Your task to perform on an android device: Add macbook pro 15 inch to the cart on newegg, then select checkout. Image 0: 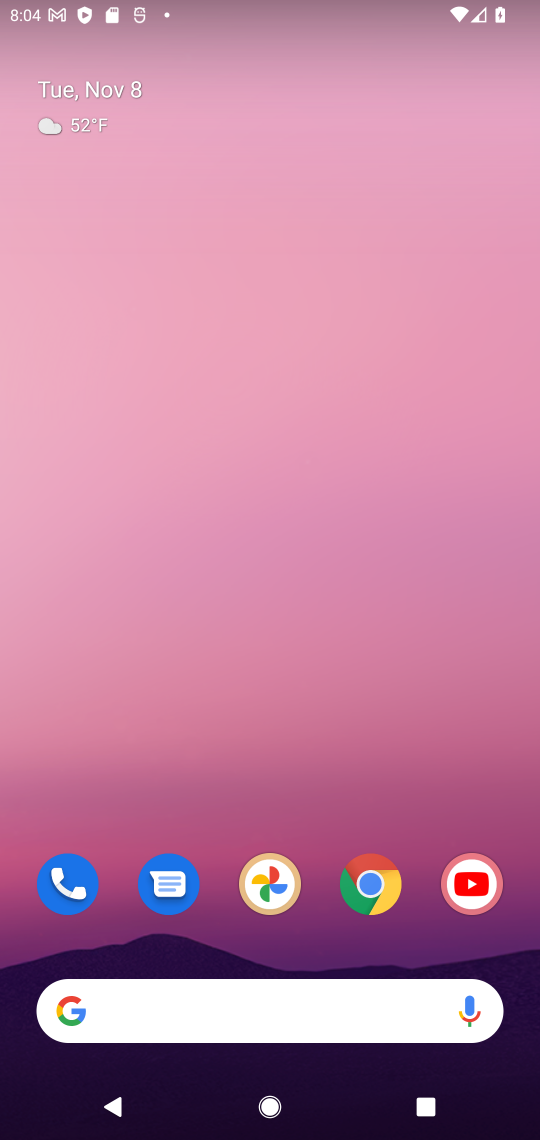
Step 0: drag from (296, 955) to (299, 278)
Your task to perform on an android device: Add macbook pro 15 inch to the cart on newegg, then select checkout. Image 1: 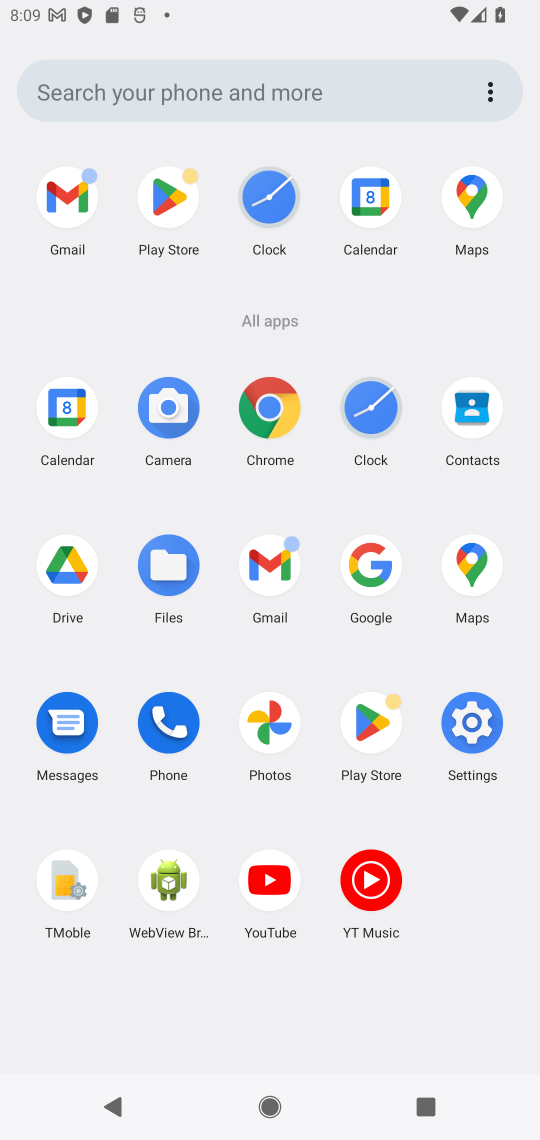
Step 1: click (370, 583)
Your task to perform on an android device: Add macbook pro 15 inch to the cart on newegg, then select checkout. Image 2: 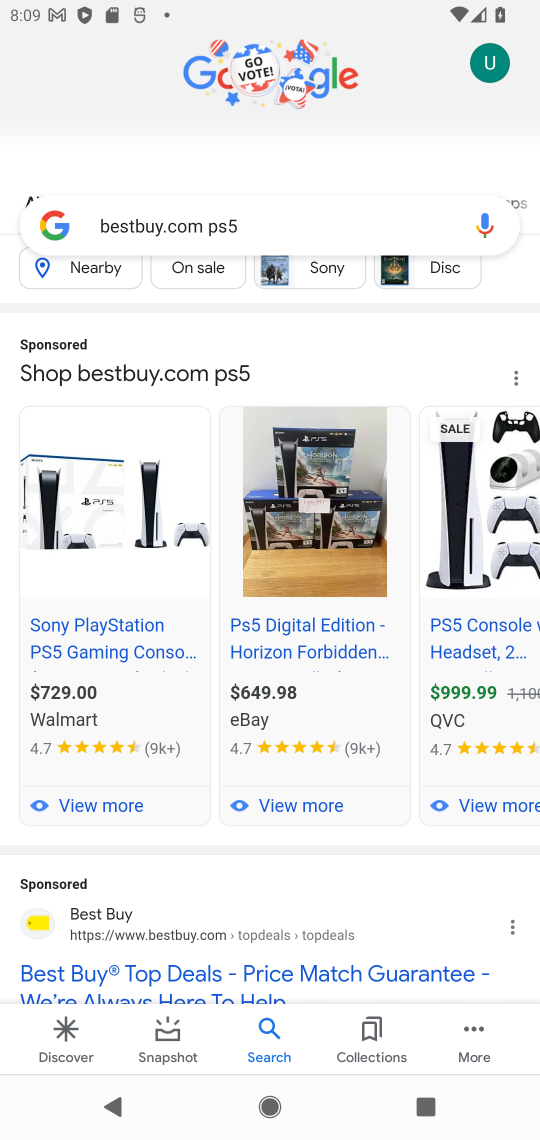
Step 2: click (301, 214)
Your task to perform on an android device: Add macbook pro 15 inch to the cart on newegg, then select checkout. Image 3: 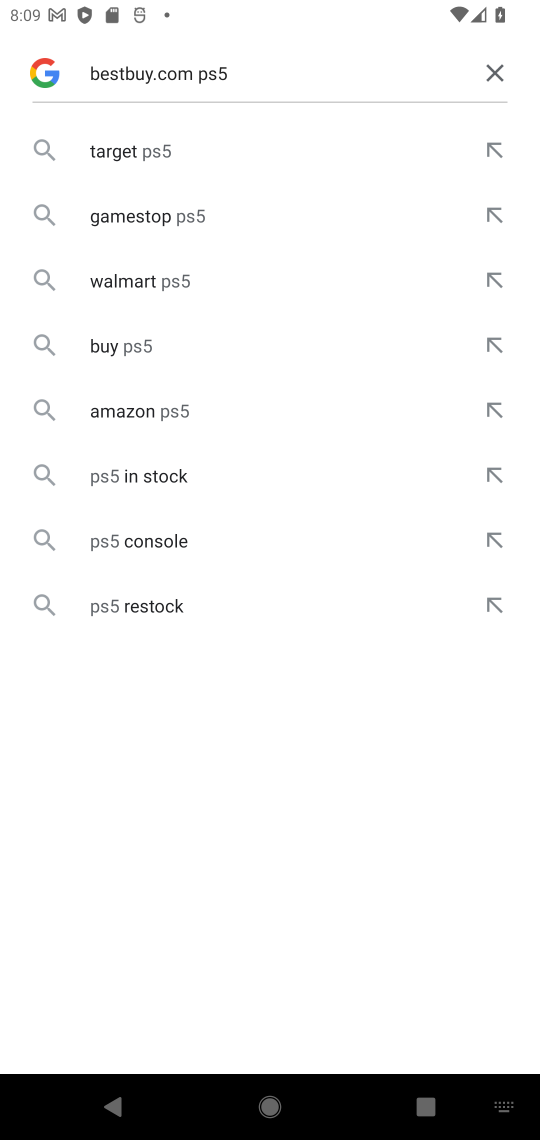
Step 3: click (495, 88)
Your task to perform on an android device: Add macbook pro 15 inch to the cart on newegg, then select checkout. Image 4: 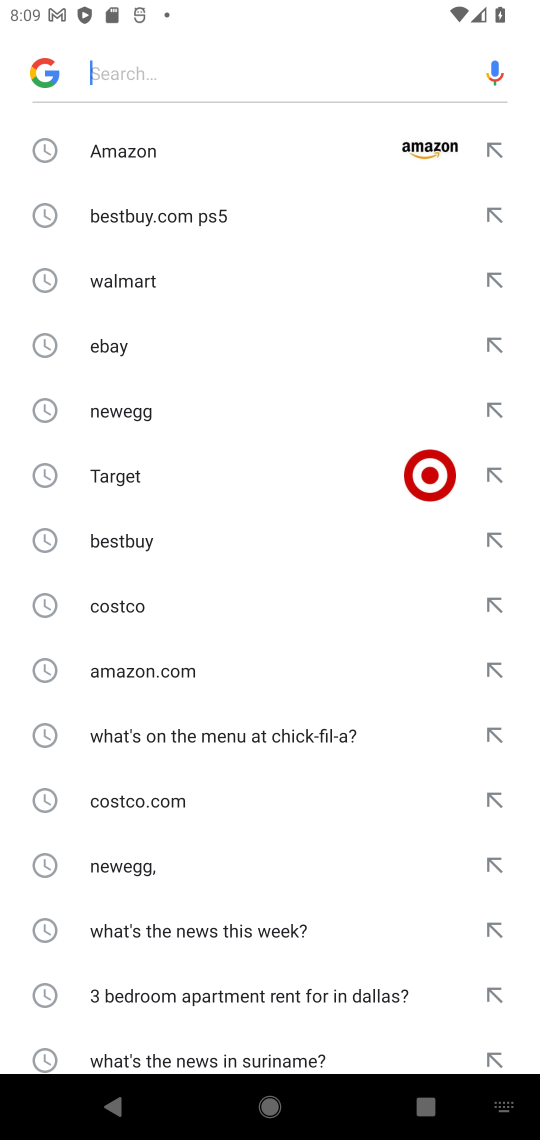
Step 4: type "newegg"
Your task to perform on an android device: Add macbook pro 15 inch to the cart on newegg, then select checkout. Image 5: 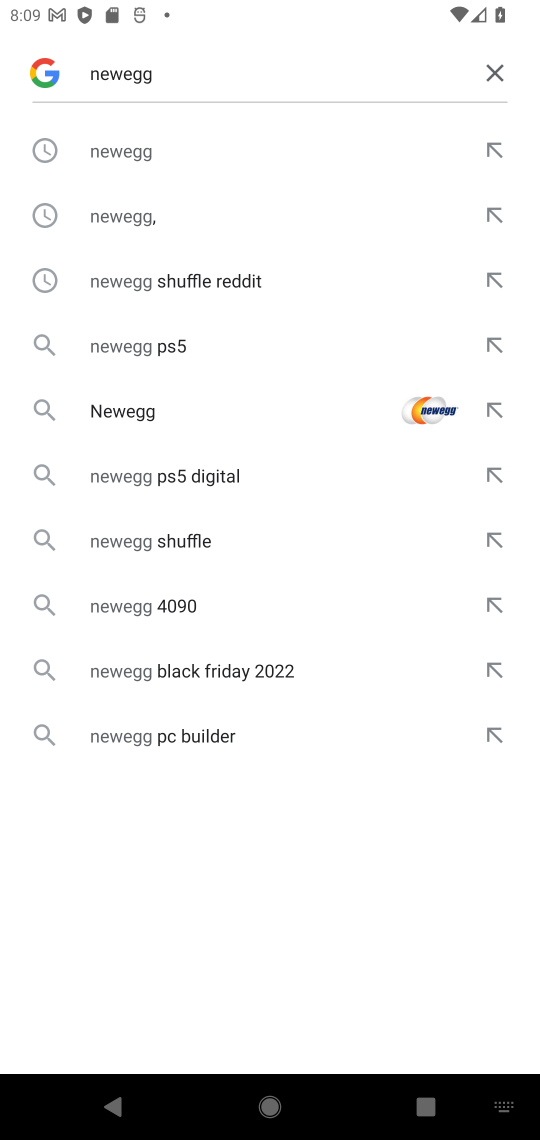
Step 5: click (212, 154)
Your task to perform on an android device: Add macbook pro 15 inch to the cart on newegg, then select checkout. Image 6: 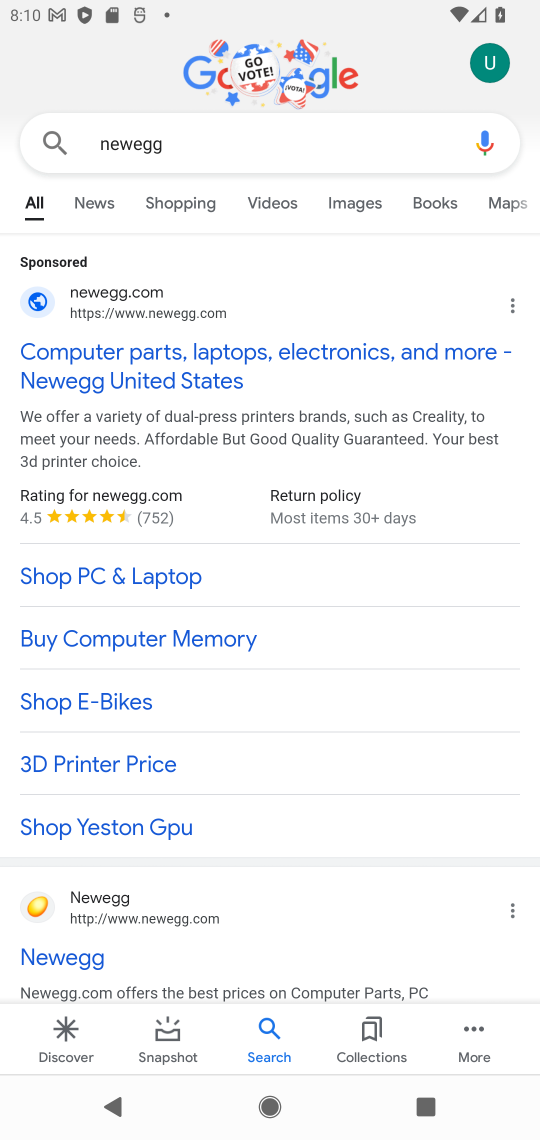
Step 6: click (152, 384)
Your task to perform on an android device: Add macbook pro 15 inch to the cart on newegg, then select checkout. Image 7: 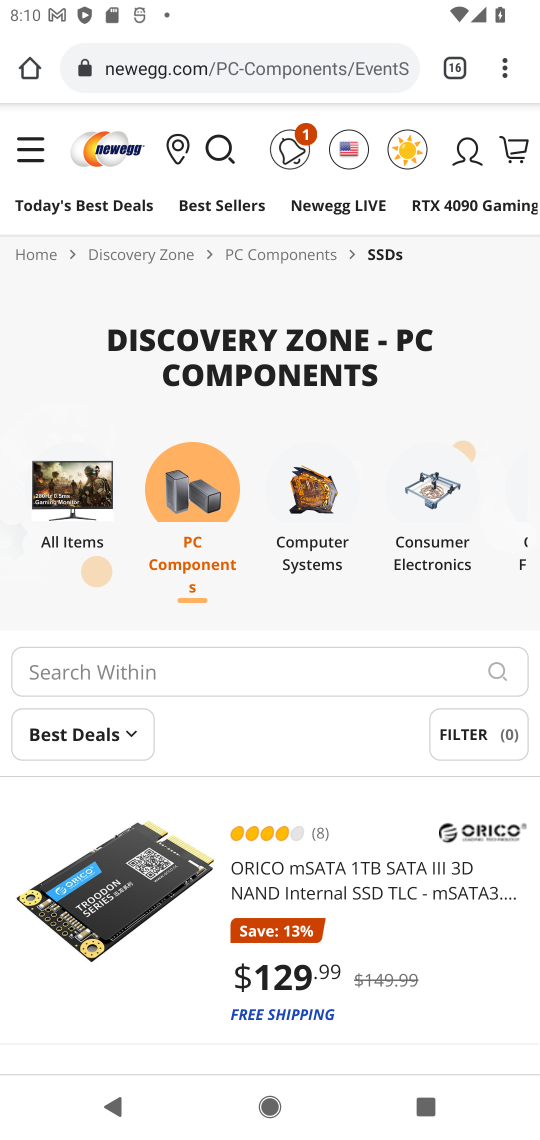
Step 7: click (226, 154)
Your task to perform on an android device: Add macbook pro 15 inch to the cart on newegg, then select checkout. Image 8: 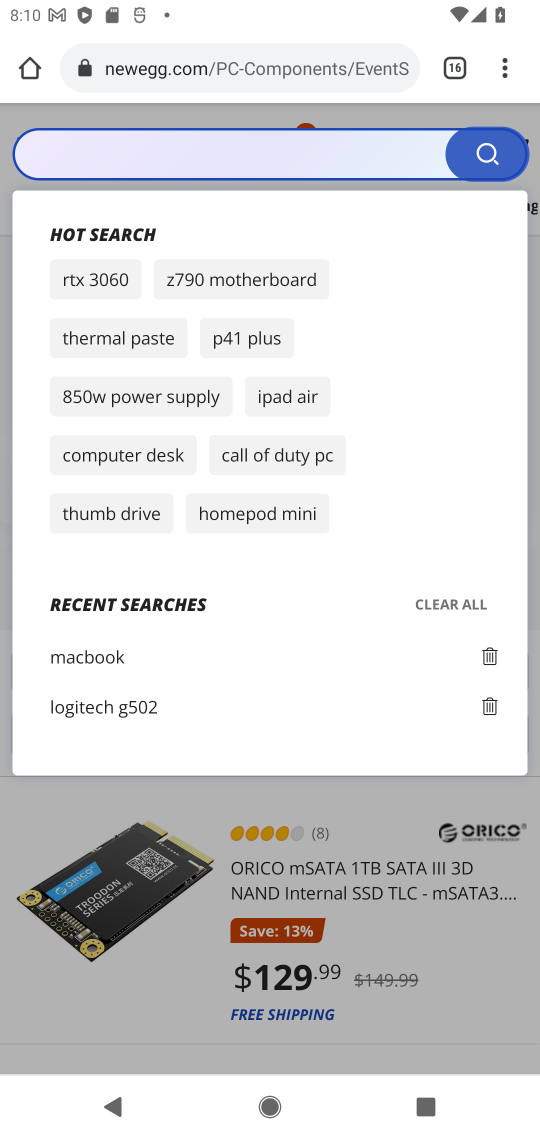
Step 8: click (122, 174)
Your task to perform on an android device: Add macbook pro 15 inch to the cart on newegg, then select checkout. Image 9: 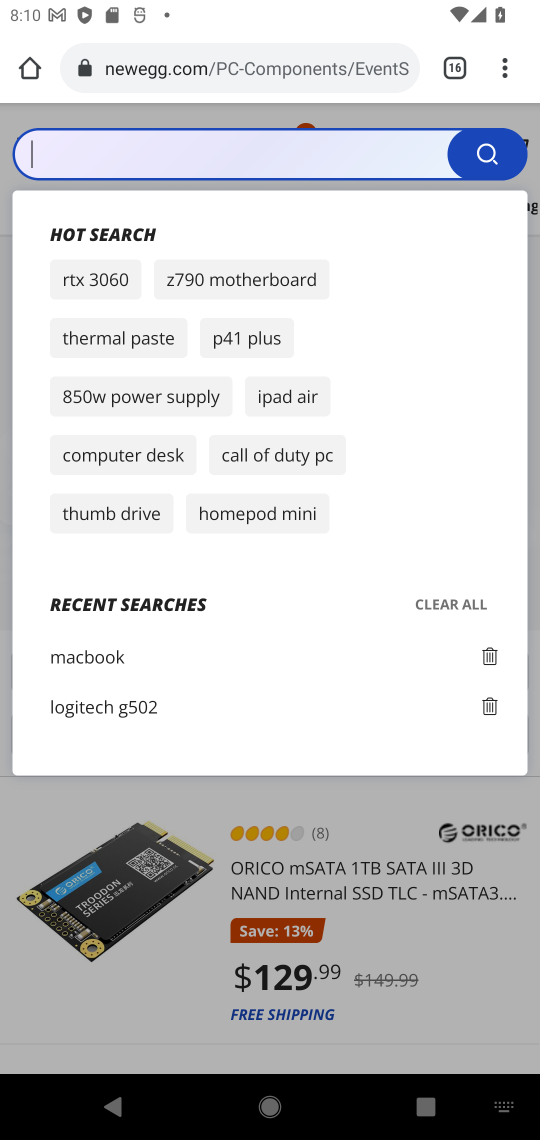
Step 9: type "macbook pro 15"
Your task to perform on an android device: Add macbook pro 15 inch to the cart on newegg, then select checkout. Image 10: 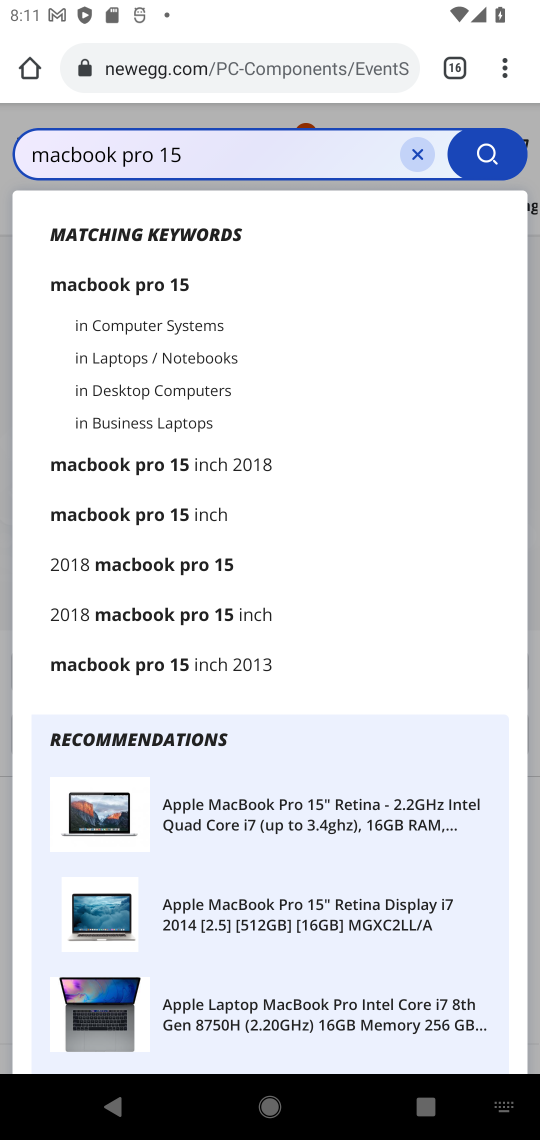
Step 10: click (182, 285)
Your task to perform on an android device: Add macbook pro 15 inch to the cart on newegg, then select checkout. Image 11: 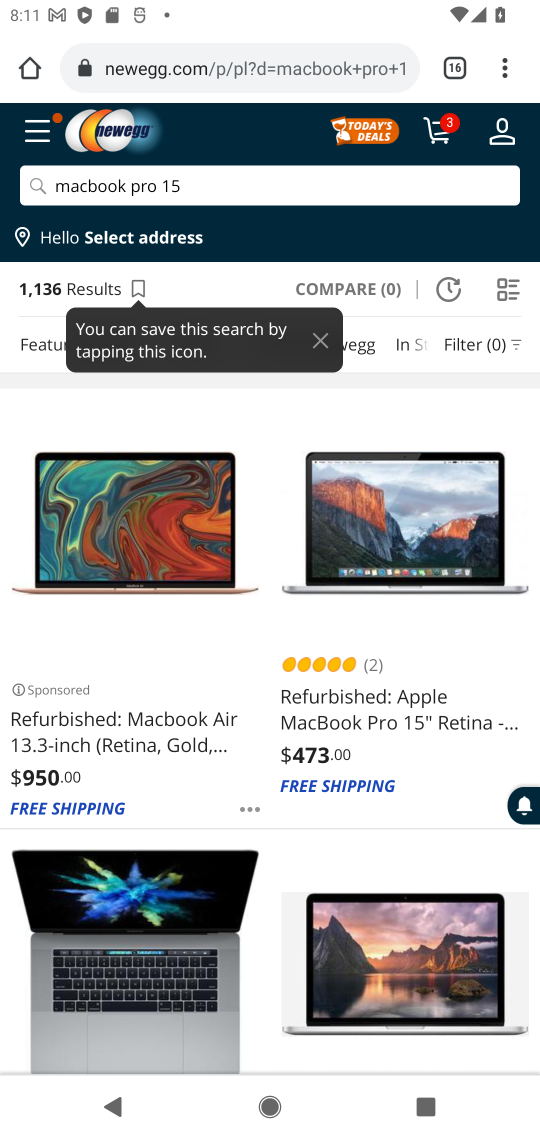
Step 11: click (116, 517)
Your task to perform on an android device: Add macbook pro 15 inch to the cart on newegg, then select checkout. Image 12: 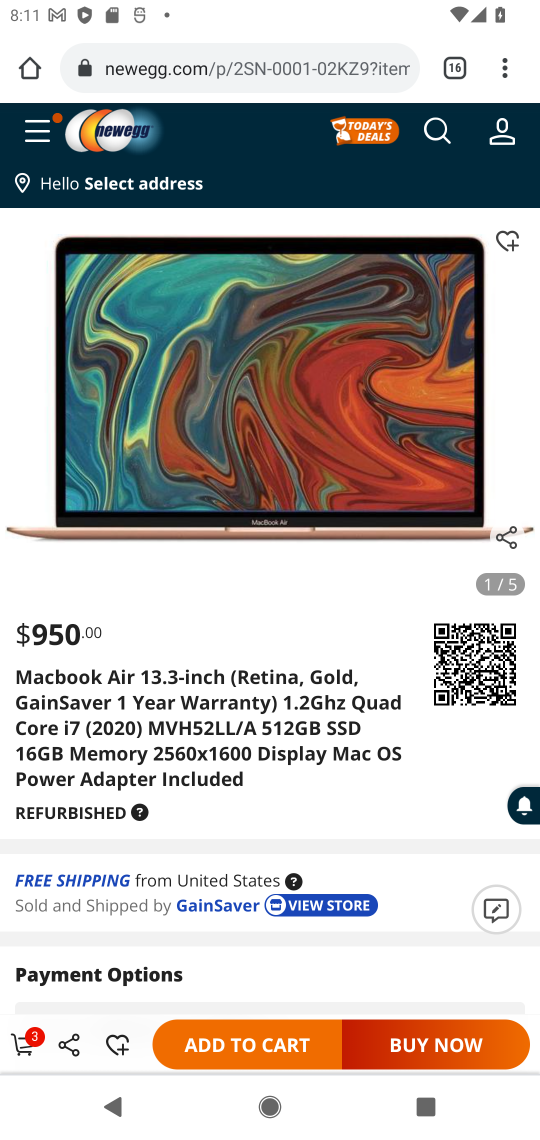
Step 12: click (260, 1044)
Your task to perform on an android device: Add macbook pro 15 inch to the cart on newegg, then select checkout. Image 13: 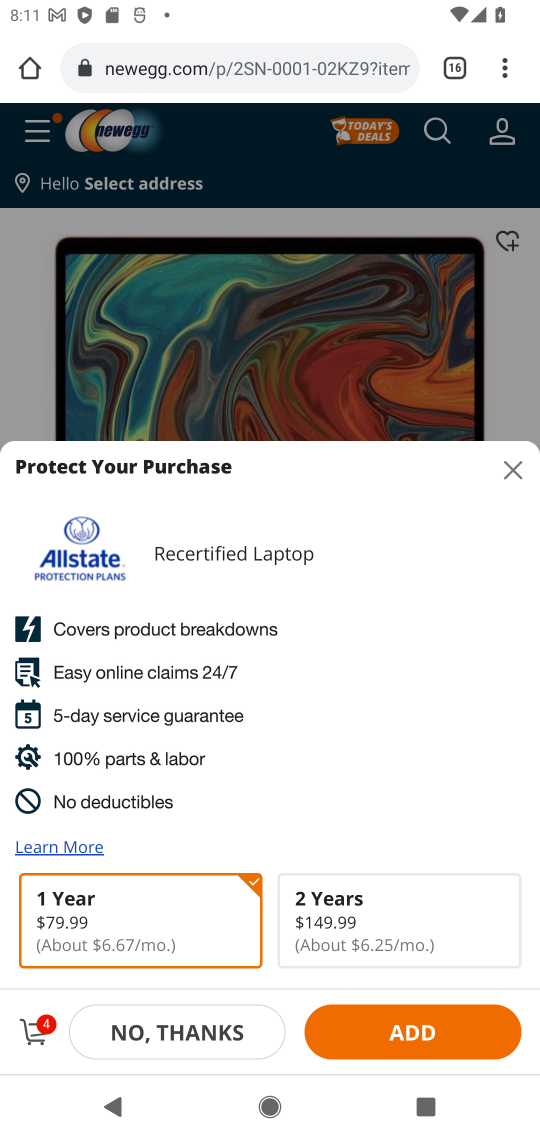
Step 13: click (232, 1019)
Your task to perform on an android device: Add macbook pro 15 inch to the cart on newegg, then select checkout. Image 14: 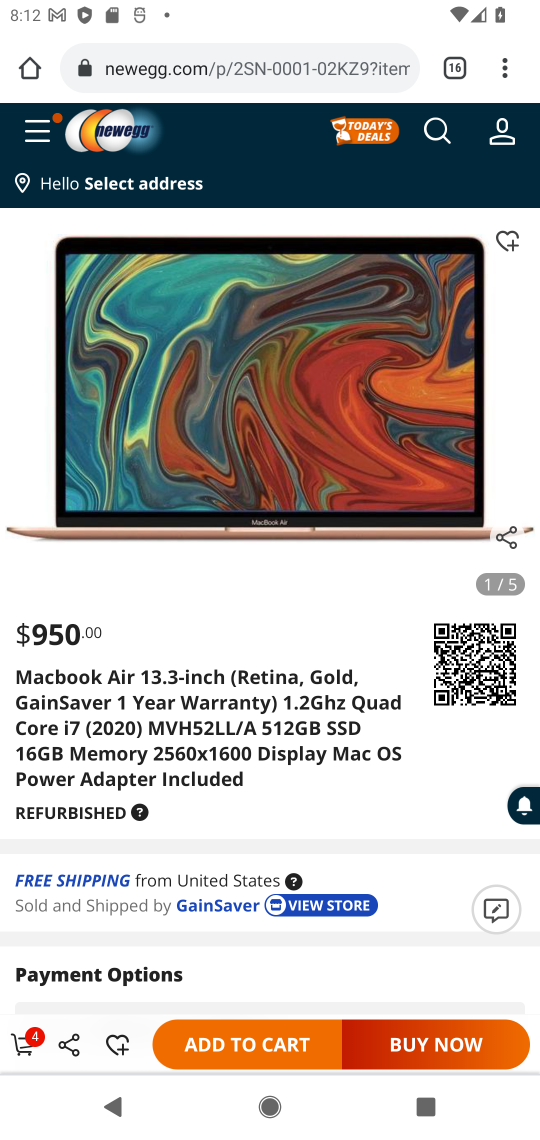
Step 14: click (28, 1045)
Your task to perform on an android device: Add macbook pro 15 inch to the cart on newegg, then select checkout. Image 15: 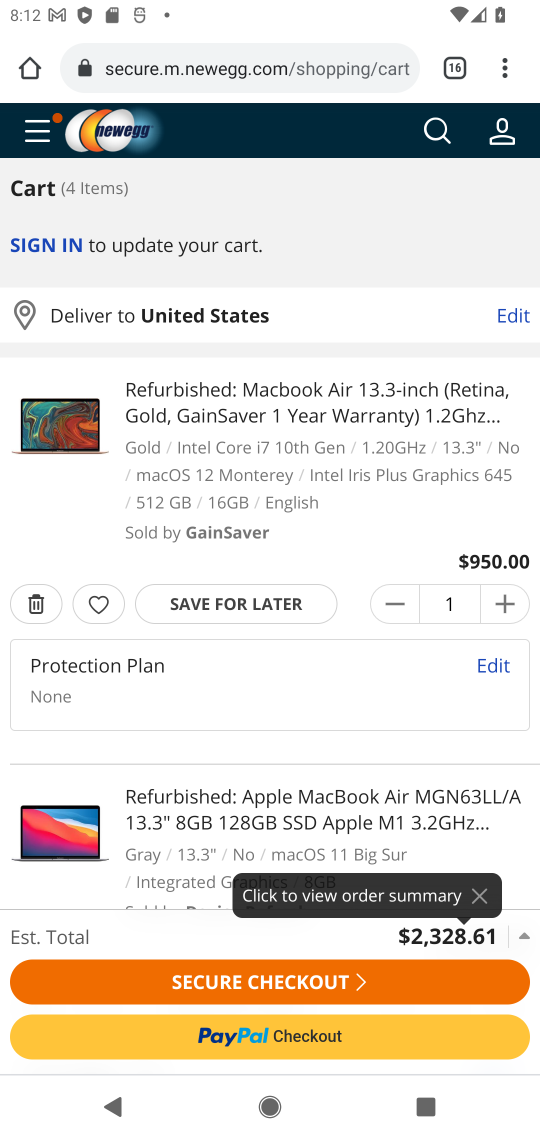
Step 15: click (266, 984)
Your task to perform on an android device: Add macbook pro 15 inch to the cart on newegg, then select checkout. Image 16: 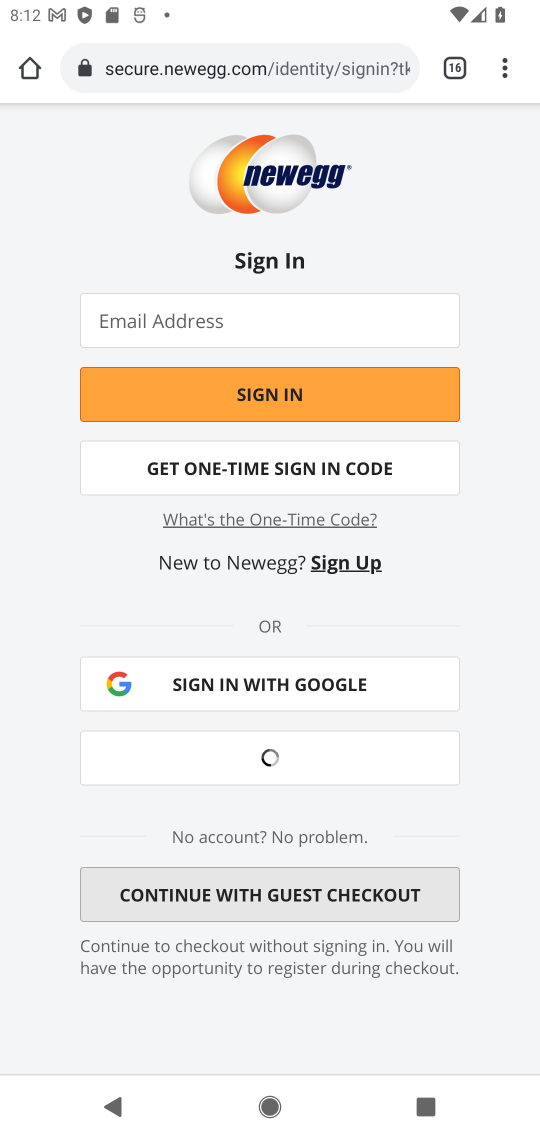
Step 16: task complete